Your task to perform on an android device: change the clock display to show seconds Image 0: 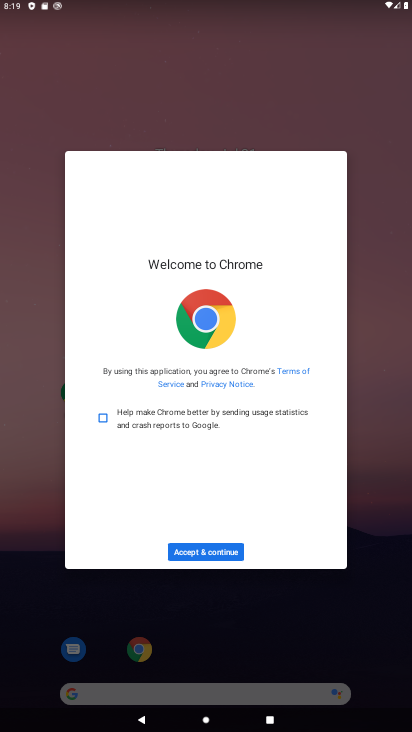
Step 0: press home button
Your task to perform on an android device: change the clock display to show seconds Image 1: 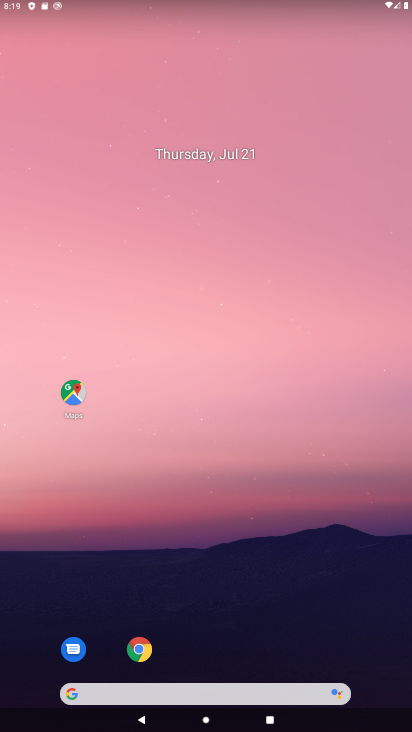
Step 1: drag from (215, 672) to (288, 63)
Your task to perform on an android device: change the clock display to show seconds Image 2: 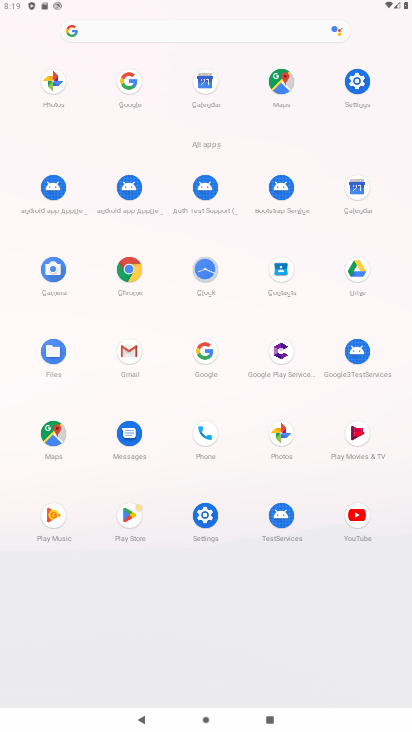
Step 2: click (201, 272)
Your task to perform on an android device: change the clock display to show seconds Image 3: 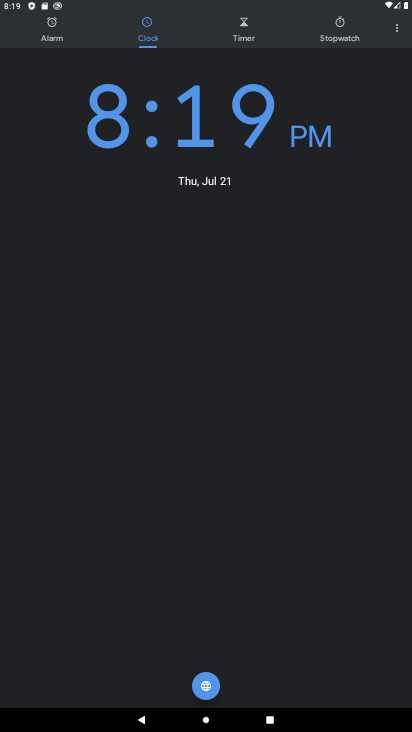
Step 3: click (393, 31)
Your task to perform on an android device: change the clock display to show seconds Image 4: 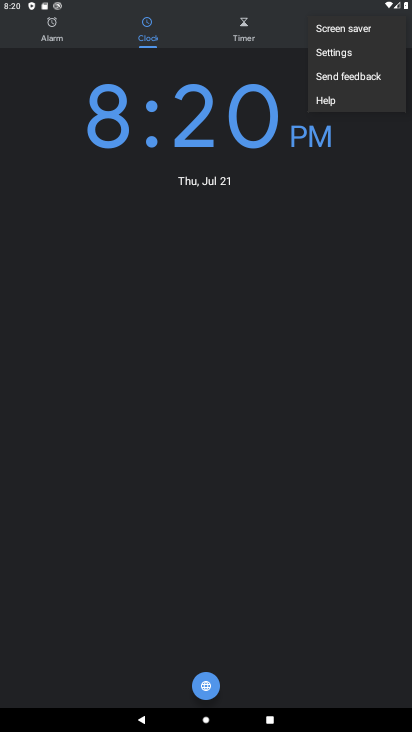
Step 4: click (345, 55)
Your task to perform on an android device: change the clock display to show seconds Image 5: 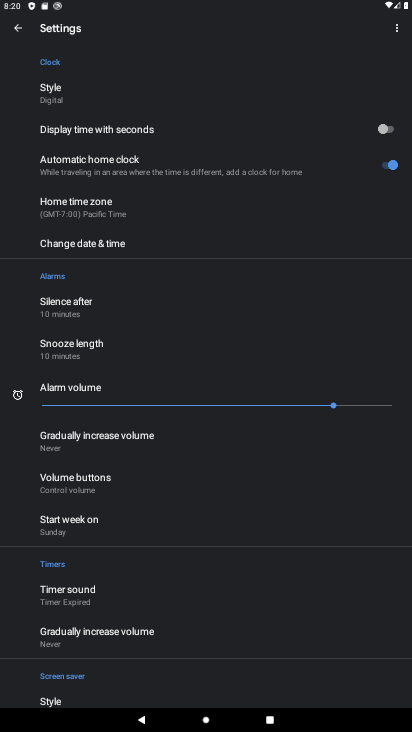
Step 5: click (382, 129)
Your task to perform on an android device: change the clock display to show seconds Image 6: 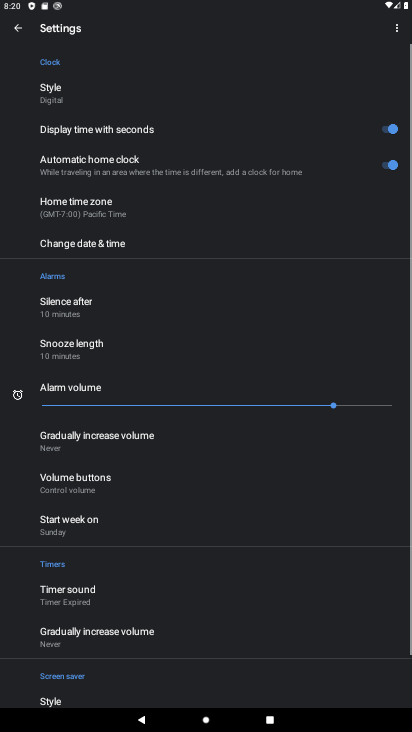
Step 6: task complete